Your task to perform on an android device: open a new tab in the chrome app Image 0: 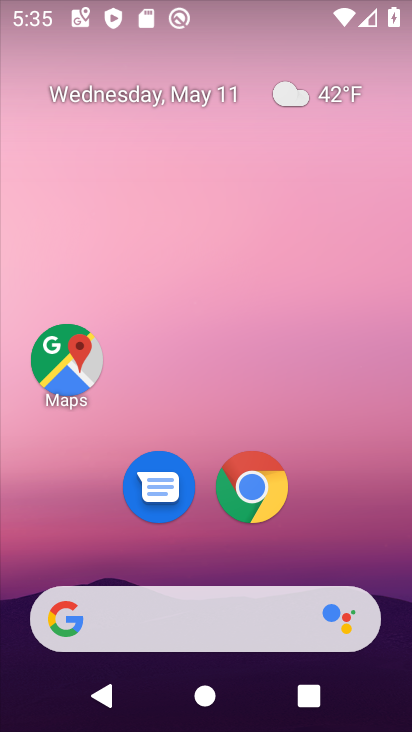
Step 0: click (273, 502)
Your task to perform on an android device: open a new tab in the chrome app Image 1: 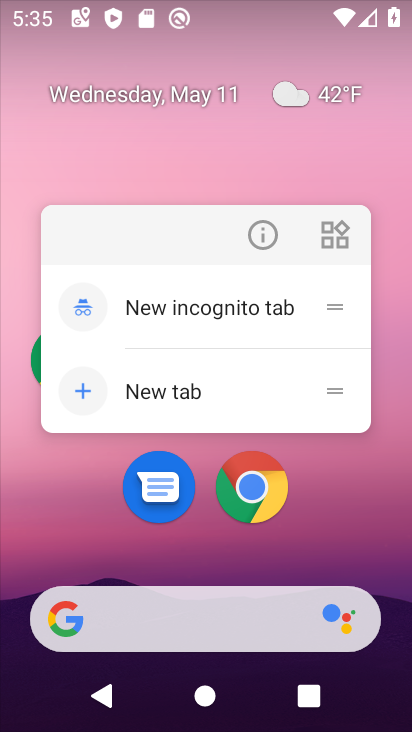
Step 1: click (254, 491)
Your task to perform on an android device: open a new tab in the chrome app Image 2: 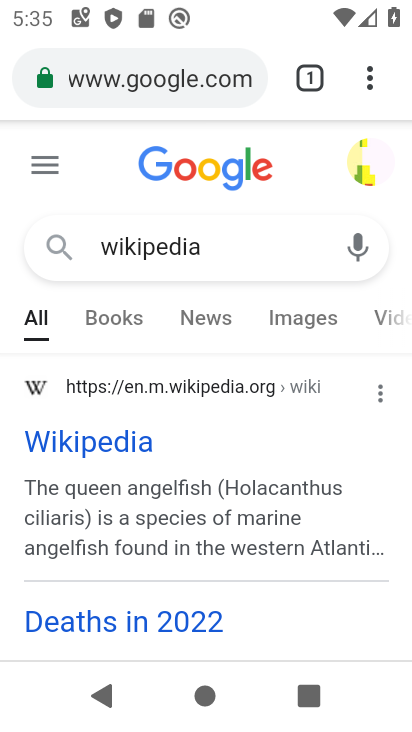
Step 2: click (374, 74)
Your task to perform on an android device: open a new tab in the chrome app Image 3: 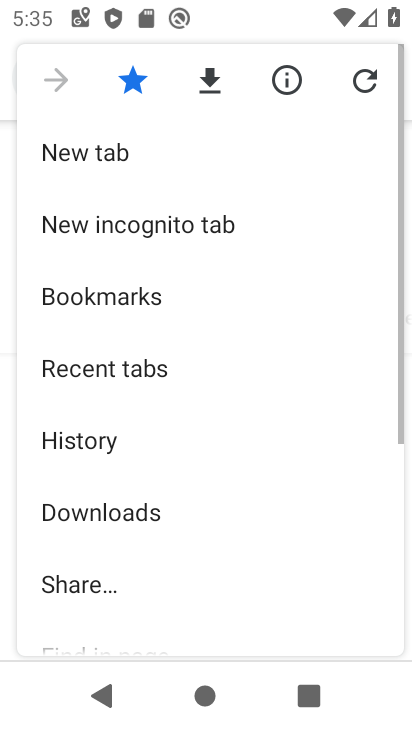
Step 3: click (128, 146)
Your task to perform on an android device: open a new tab in the chrome app Image 4: 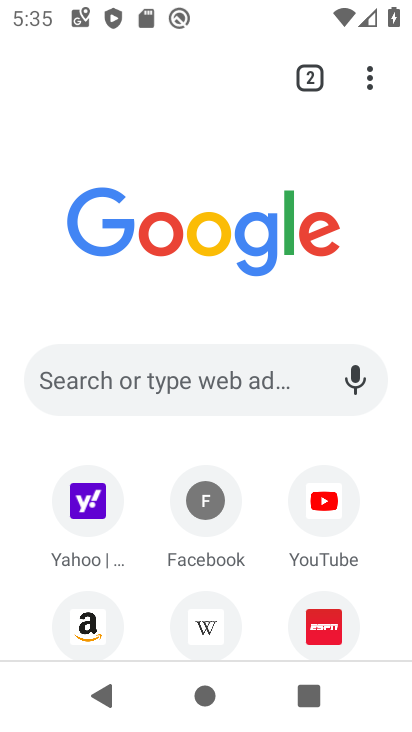
Step 4: task complete